Your task to perform on an android device: open app "Reddit" (install if not already installed) and go to login screen Image 0: 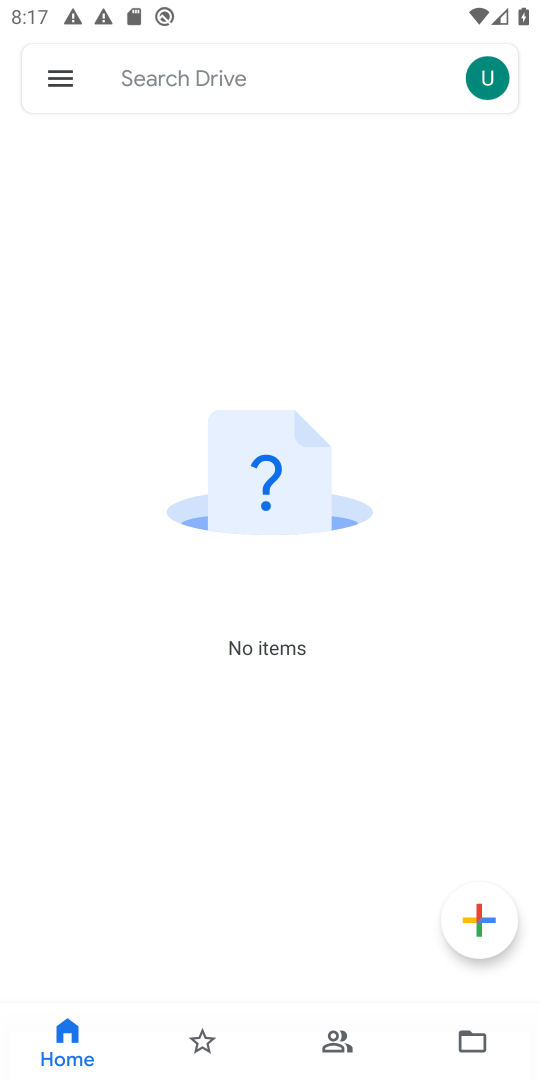
Step 0: press home button
Your task to perform on an android device: open app "Reddit" (install if not already installed) and go to login screen Image 1: 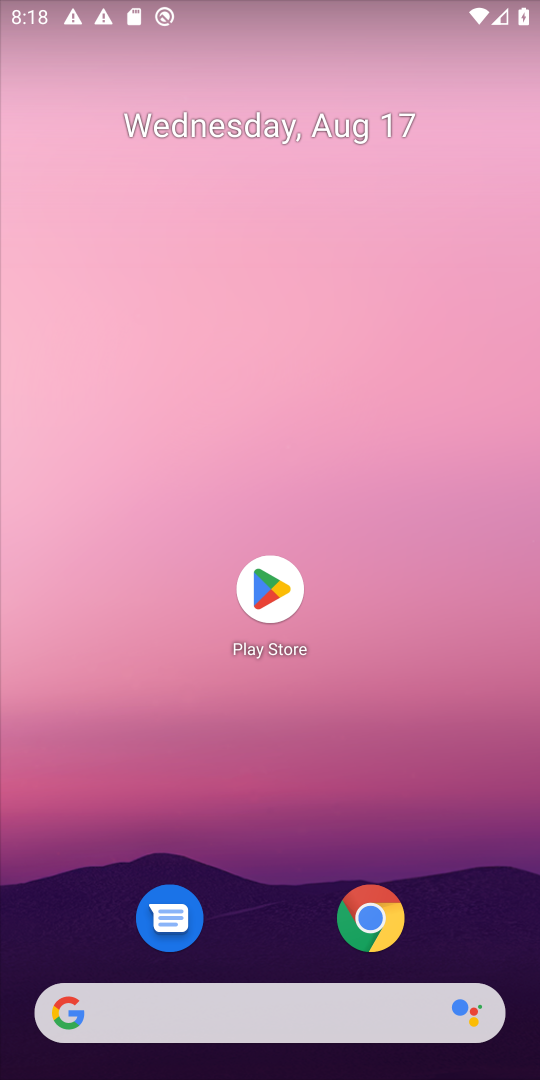
Step 1: click (244, 582)
Your task to perform on an android device: open app "Reddit" (install if not already installed) and go to login screen Image 2: 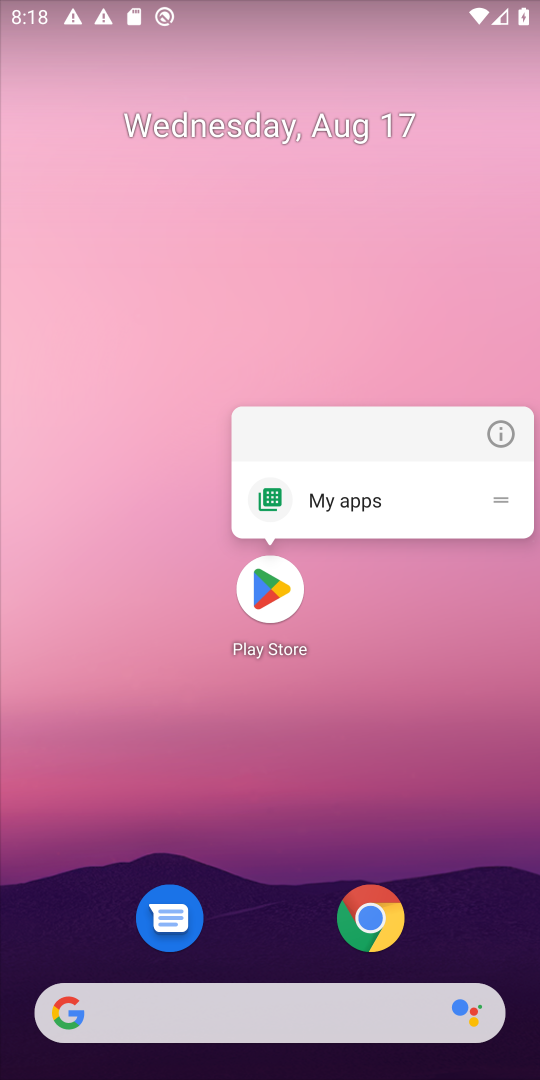
Step 2: click (258, 586)
Your task to perform on an android device: open app "Reddit" (install if not already installed) and go to login screen Image 3: 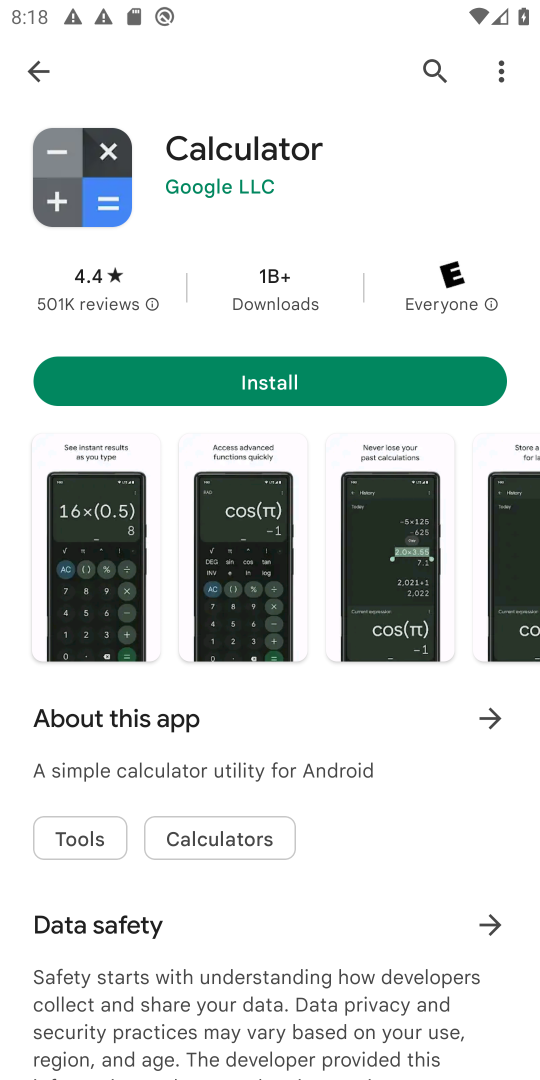
Step 3: click (430, 76)
Your task to perform on an android device: open app "Reddit" (install if not already installed) and go to login screen Image 4: 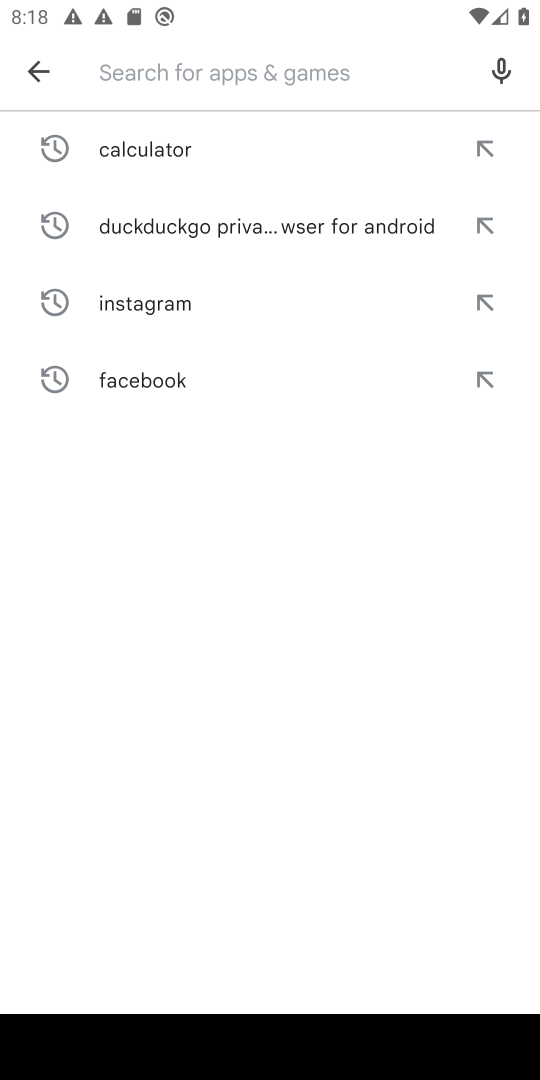
Step 4: type "Reddit"
Your task to perform on an android device: open app "Reddit" (install if not already installed) and go to login screen Image 5: 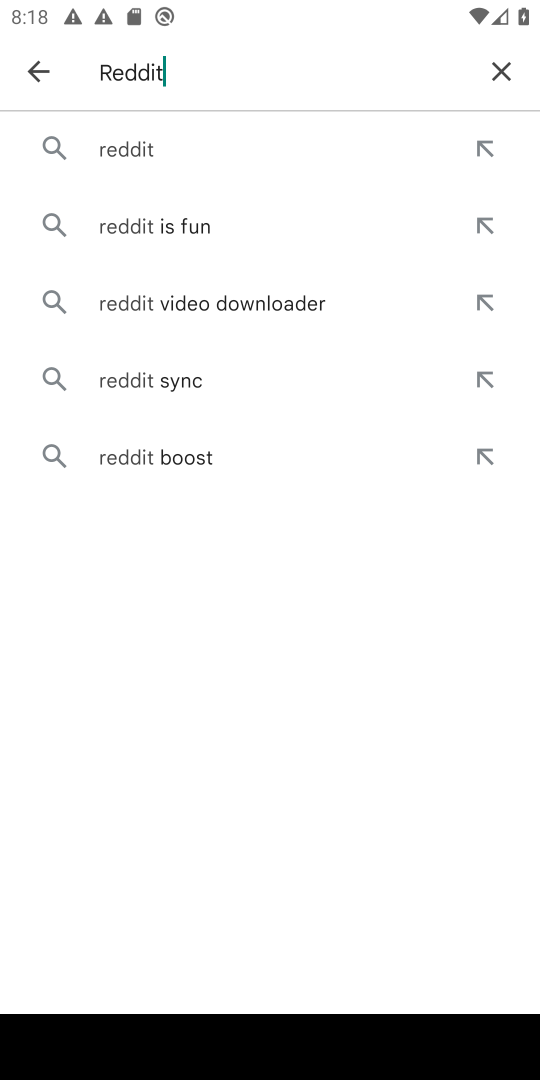
Step 5: click (111, 157)
Your task to perform on an android device: open app "Reddit" (install if not already installed) and go to login screen Image 6: 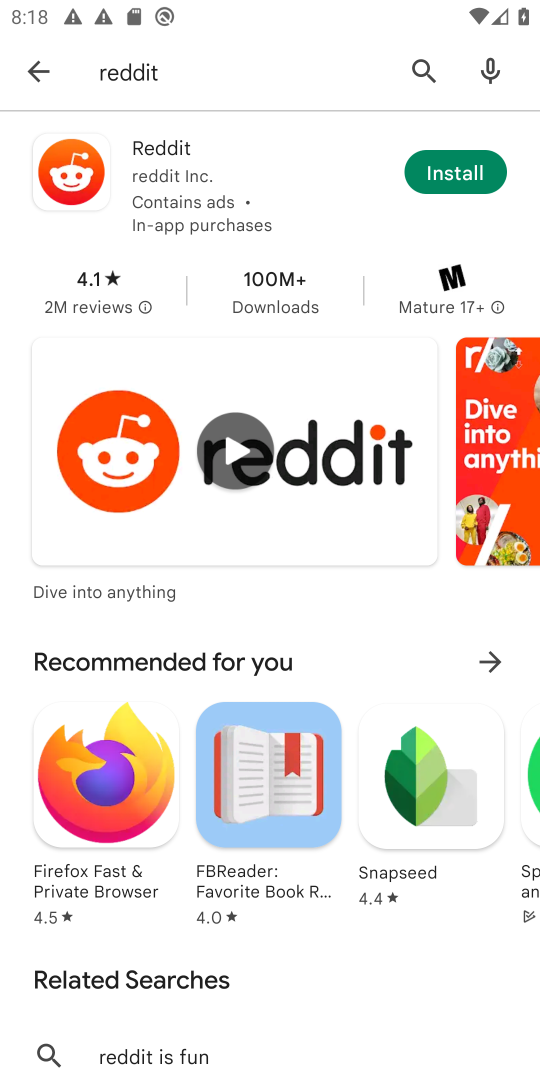
Step 6: click (456, 168)
Your task to perform on an android device: open app "Reddit" (install if not already installed) and go to login screen Image 7: 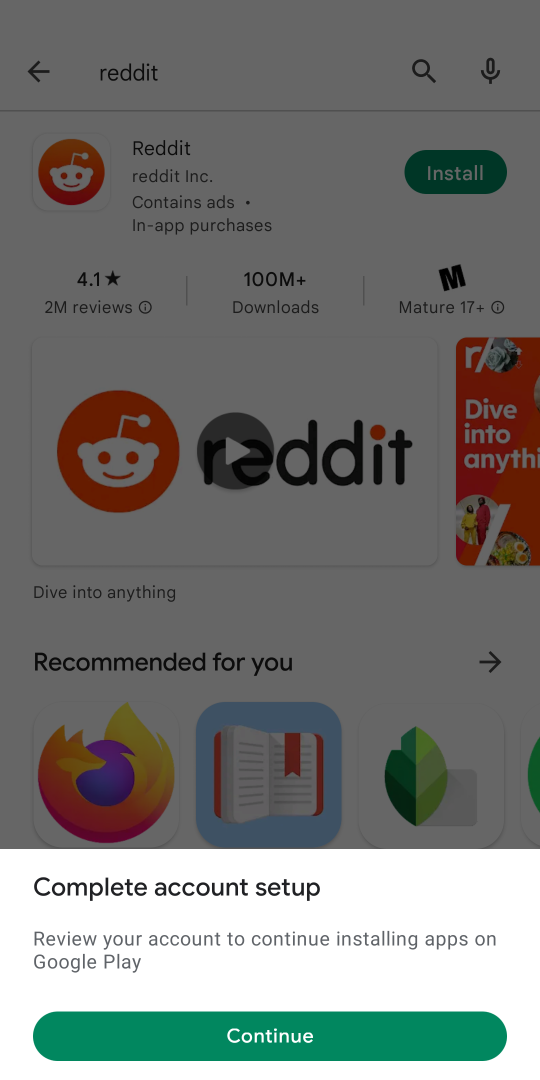
Step 7: click (286, 1029)
Your task to perform on an android device: open app "Reddit" (install if not already installed) and go to login screen Image 8: 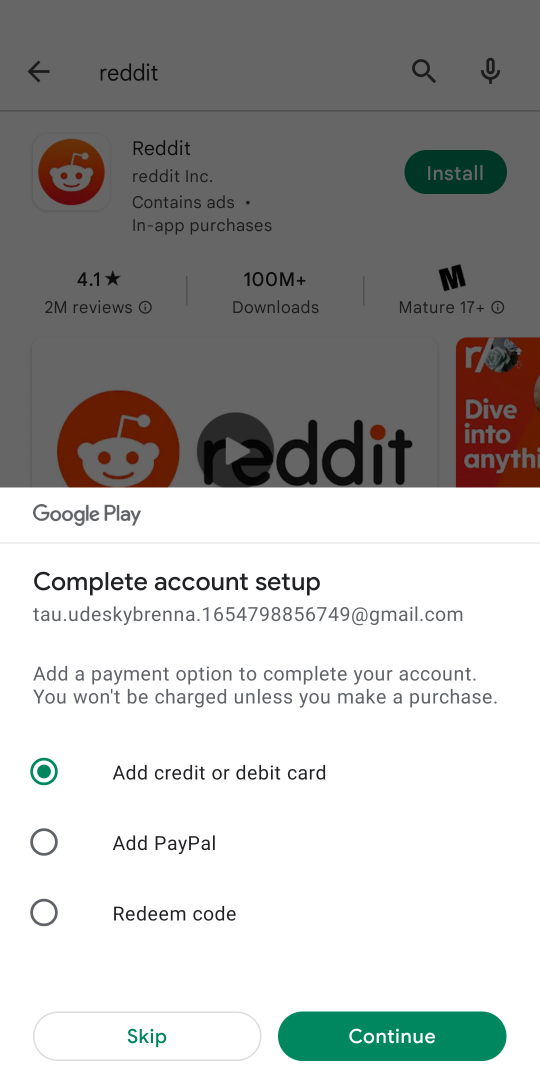
Step 8: click (160, 1036)
Your task to perform on an android device: open app "Reddit" (install if not already installed) and go to login screen Image 9: 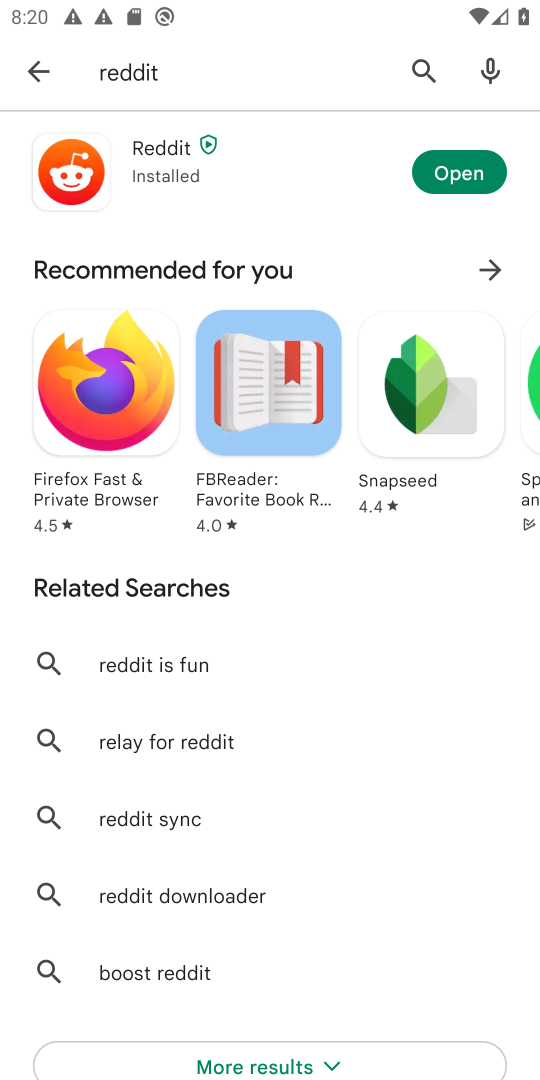
Step 9: click (464, 178)
Your task to perform on an android device: open app "Reddit" (install if not already installed) and go to login screen Image 10: 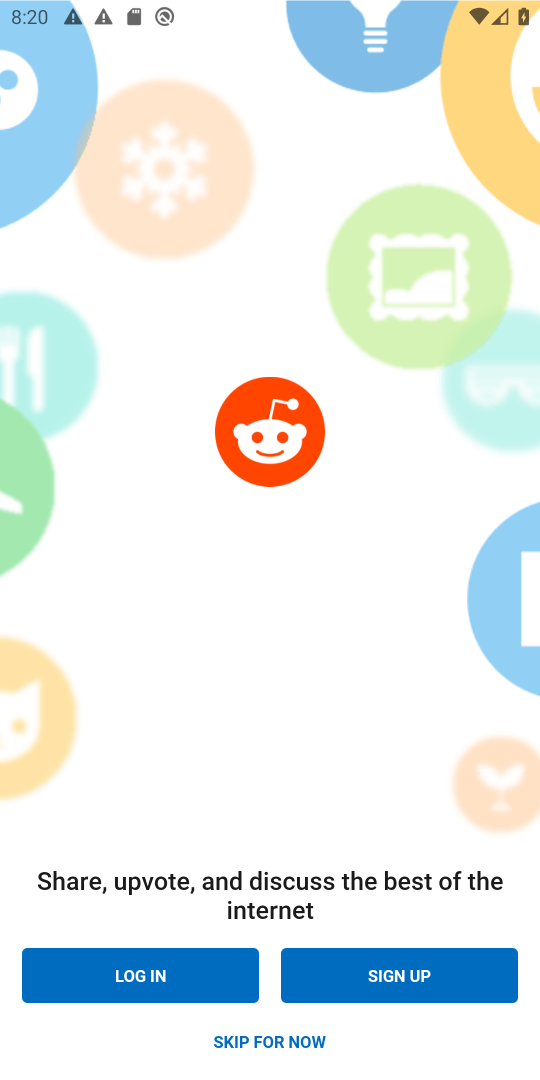
Step 10: click (203, 983)
Your task to perform on an android device: open app "Reddit" (install if not already installed) and go to login screen Image 11: 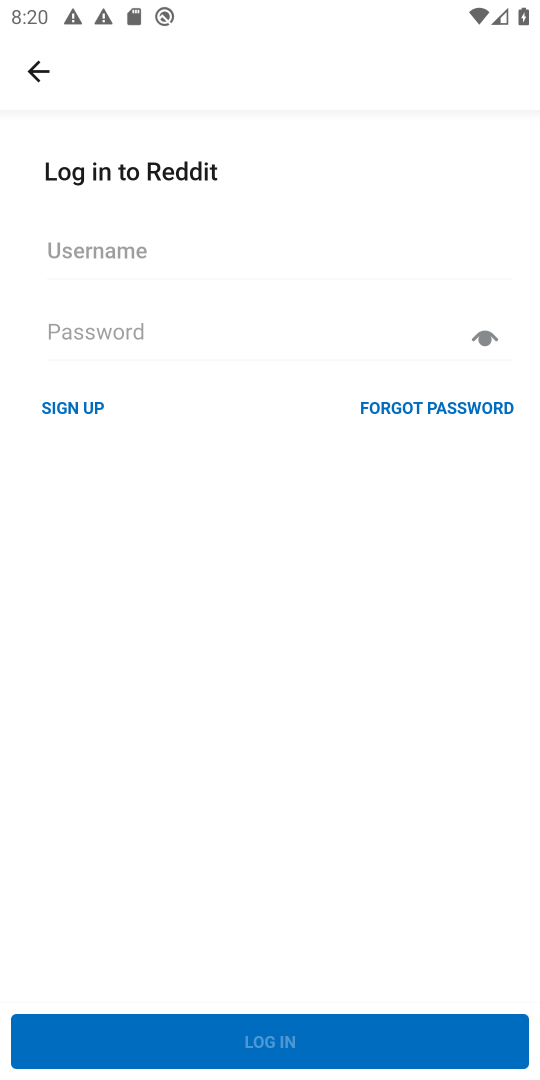
Step 11: task complete